Your task to perform on an android device: delete a single message in the gmail app Image 0: 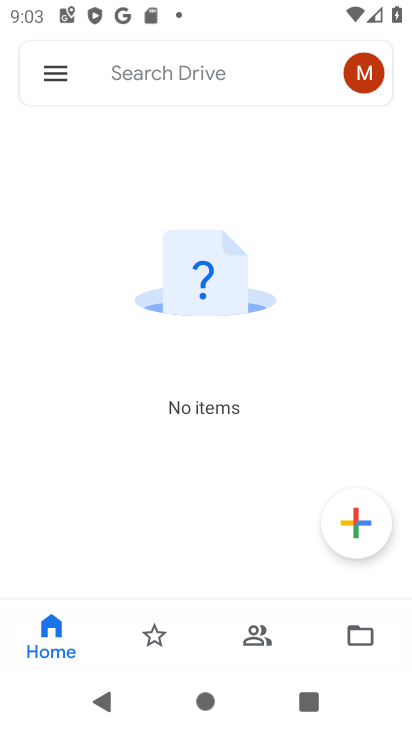
Step 0: press home button
Your task to perform on an android device: delete a single message in the gmail app Image 1: 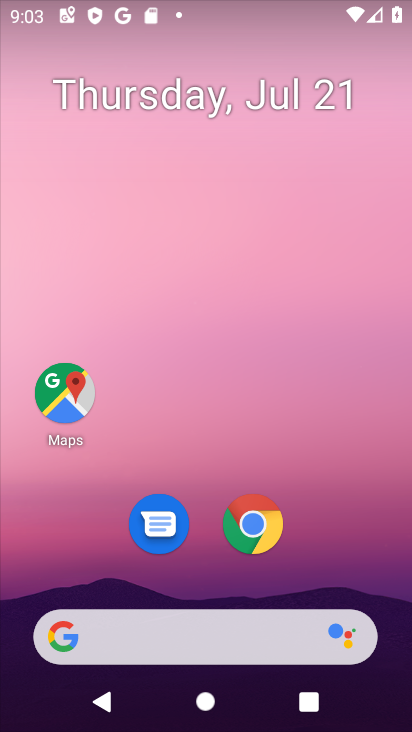
Step 1: drag from (141, 609) to (272, 125)
Your task to perform on an android device: delete a single message in the gmail app Image 2: 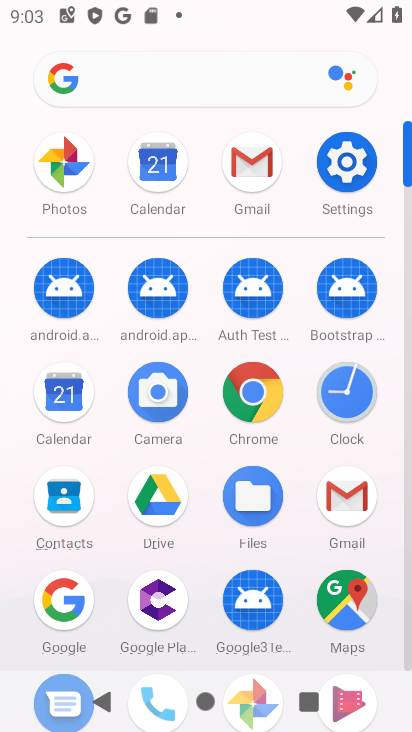
Step 2: click (260, 175)
Your task to perform on an android device: delete a single message in the gmail app Image 3: 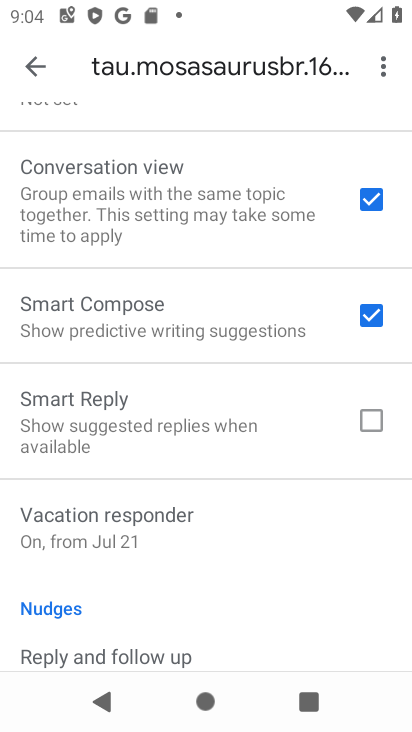
Step 3: click (37, 66)
Your task to perform on an android device: delete a single message in the gmail app Image 4: 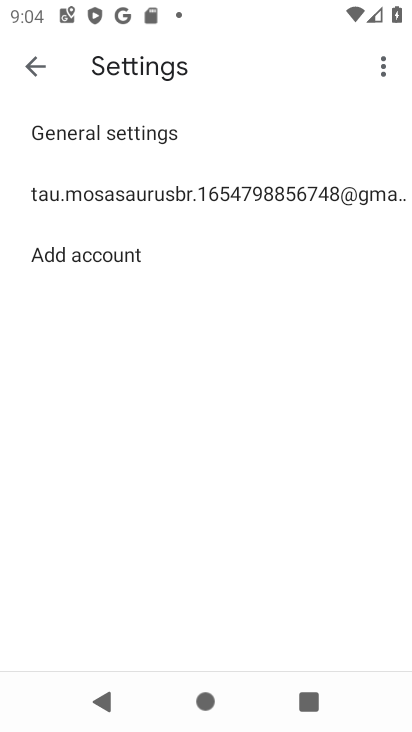
Step 4: click (37, 68)
Your task to perform on an android device: delete a single message in the gmail app Image 5: 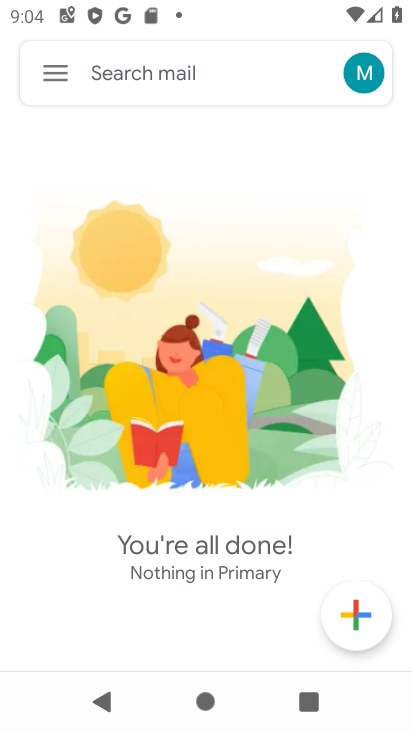
Step 5: task complete